Your task to perform on an android device: Open Maps and search for coffee Image 0: 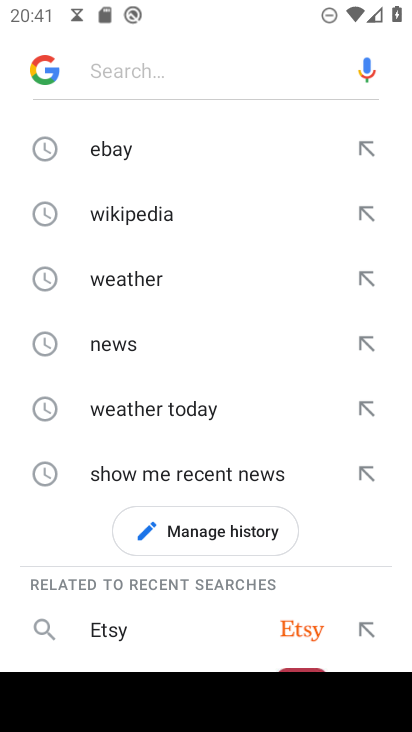
Step 0: press home button
Your task to perform on an android device: Open Maps and search for coffee Image 1: 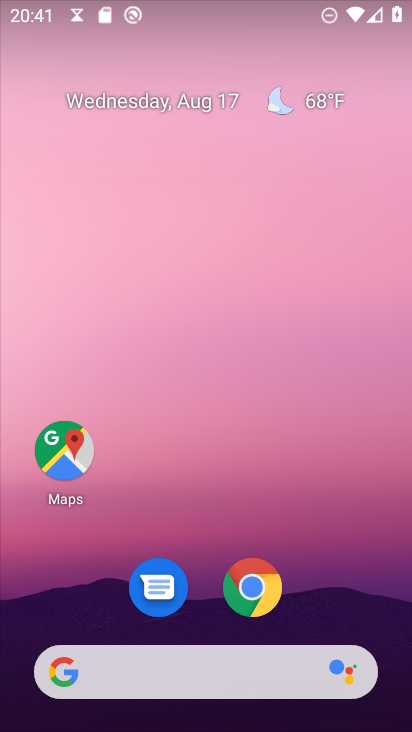
Step 1: click (69, 459)
Your task to perform on an android device: Open Maps and search for coffee Image 2: 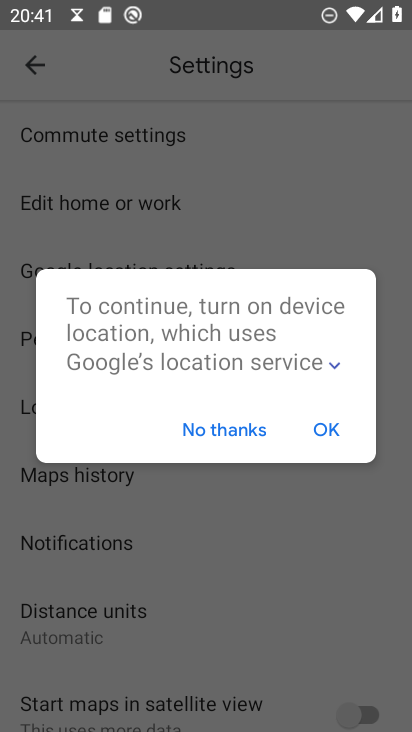
Step 2: press back button
Your task to perform on an android device: Open Maps and search for coffee Image 3: 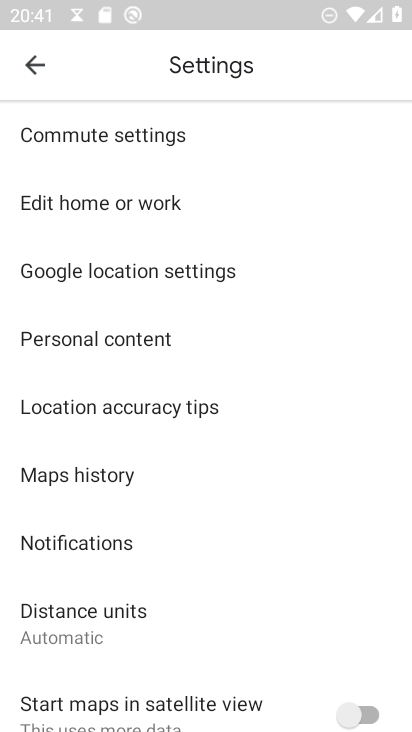
Step 3: press back button
Your task to perform on an android device: Open Maps and search for coffee Image 4: 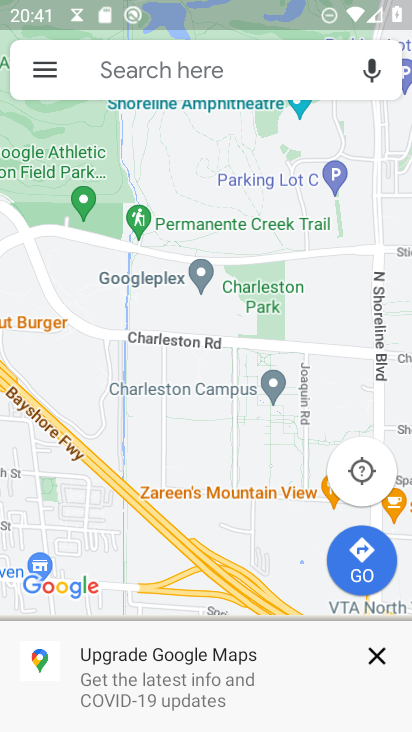
Step 4: click (105, 63)
Your task to perform on an android device: Open Maps and search for coffee Image 5: 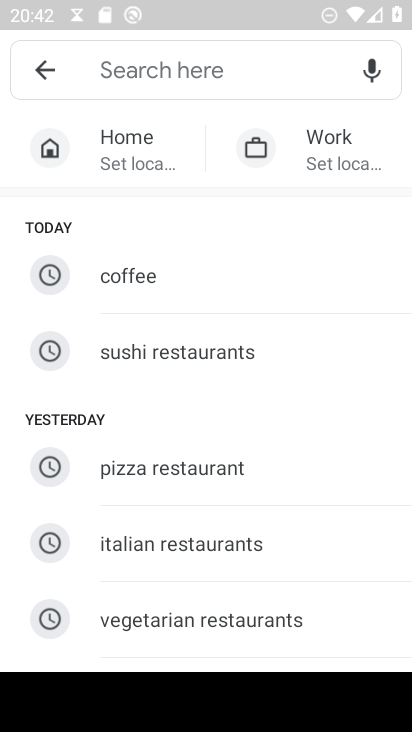
Step 5: click (122, 277)
Your task to perform on an android device: Open Maps and search for coffee Image 6: 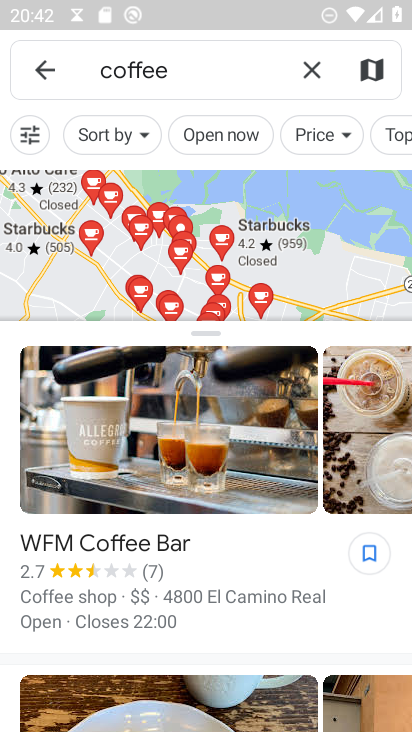
Step 6: task complete